Your task to perform on an android device: Open Google Maps Image 0: 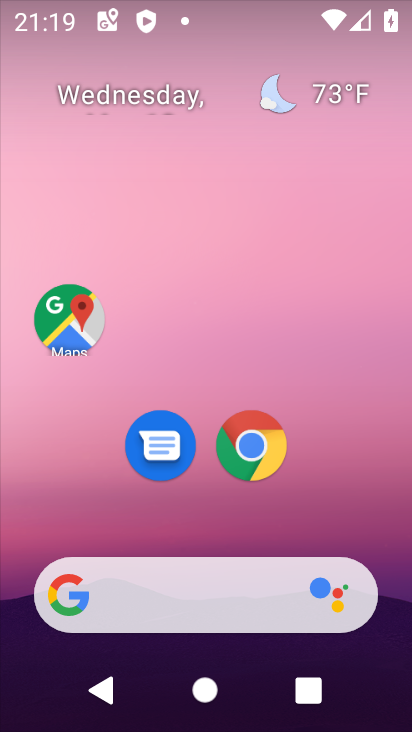
Step 0: click (56, 302)
Your task to perform on an android device: Open Google Maps Image 1: 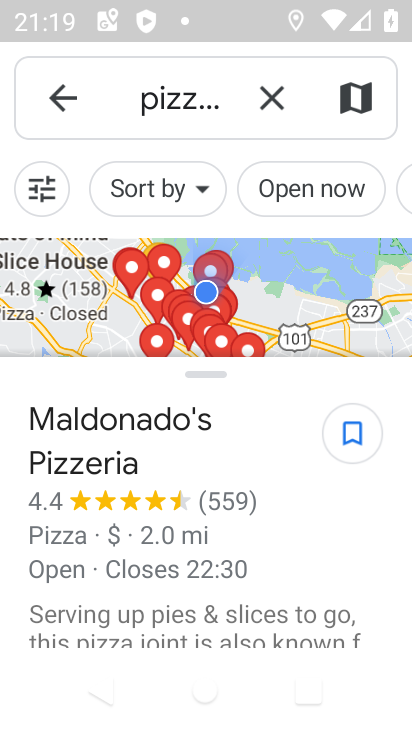
Step 1: click (285, 105)
Your task to perform on an android device: Open Google Maps Image 2: 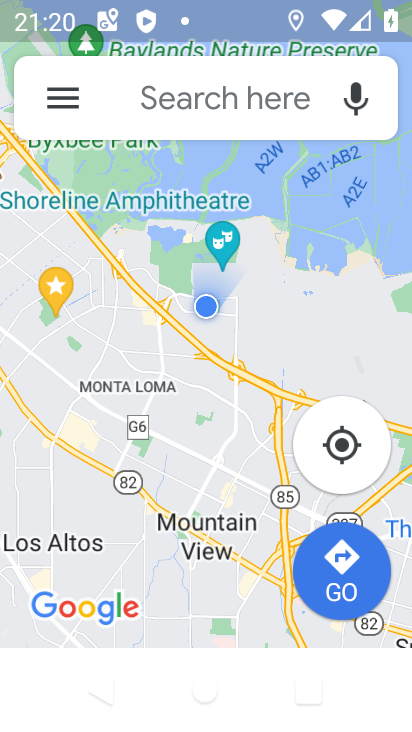
Step 2: task complete